Your task to perform on an android device: Open privacy settings Image 0: 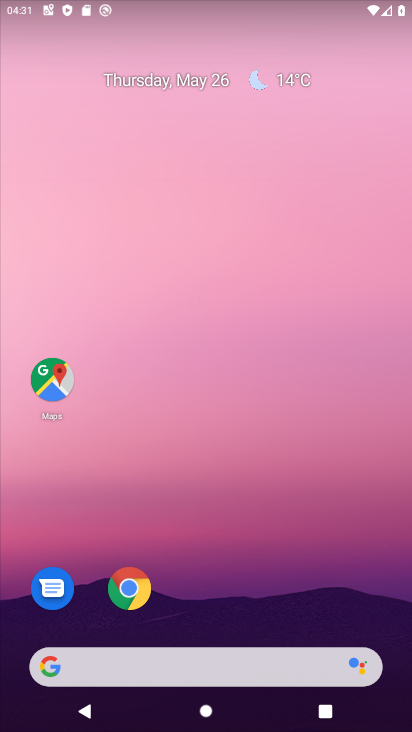
Step 0: click (331, 470)
Your task to perform on an android device: Open privacy settings Image 1: 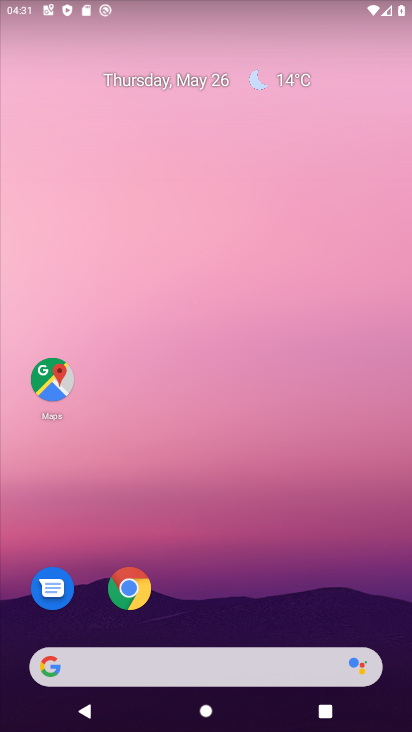
Step 1: drag from (268, 595) to (308, 134)
Your task to perform on an android device: Open privacy settings Image 2: 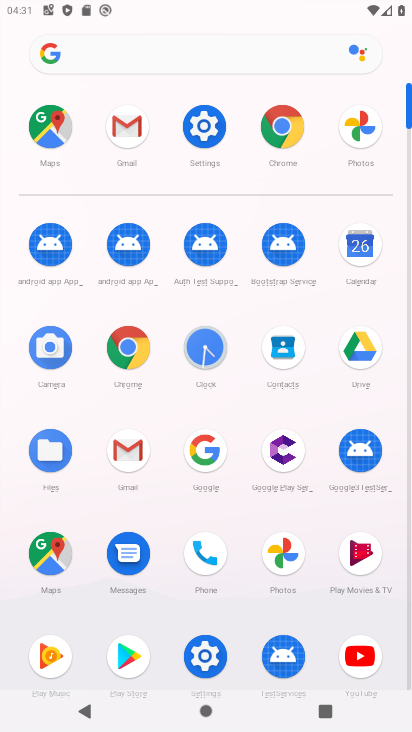
Step 2: click (219, 134)
Your task to perform on an android device: Open privacy settings Image 3: 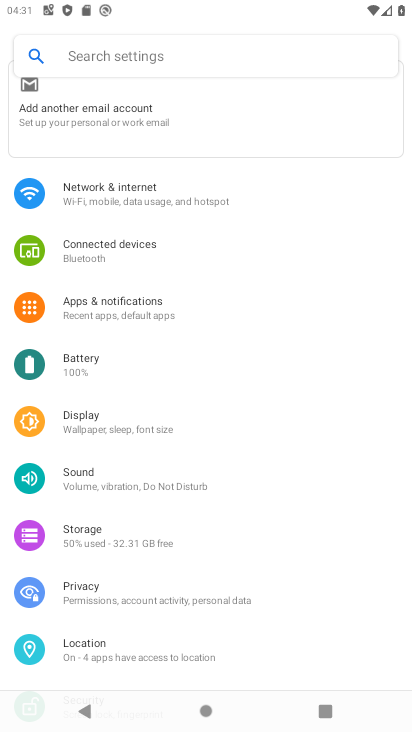
Step 3: click (134, 615)
Your task to perform on an android device: Open privacy settings Image 4: 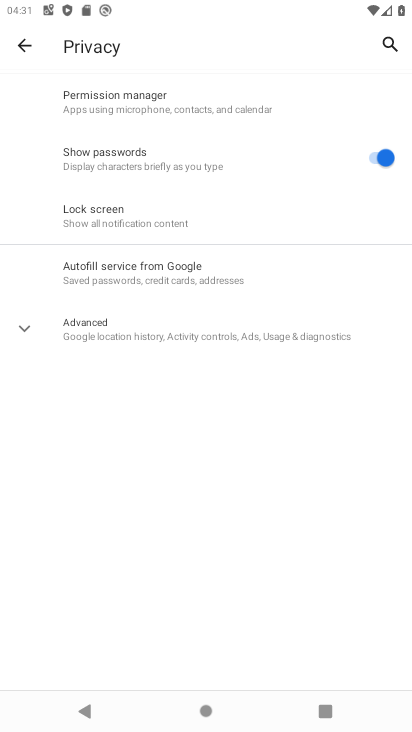
Step 4: task complete